Your task to perform on an android device: Go to location settings Image 0: 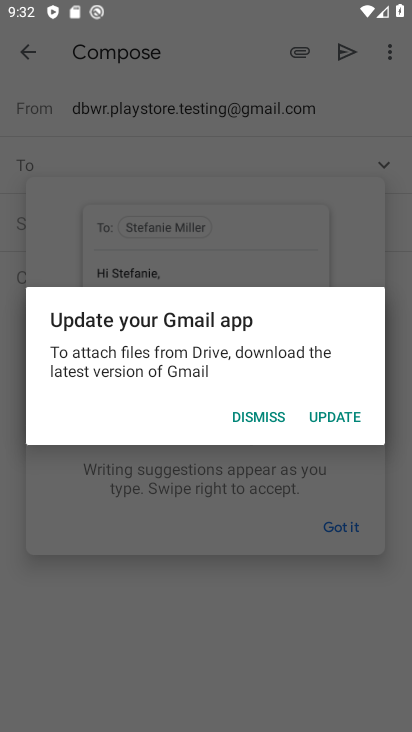
Step 0: press back button
Your task to perform on an android device: Go to location settings Image 1: 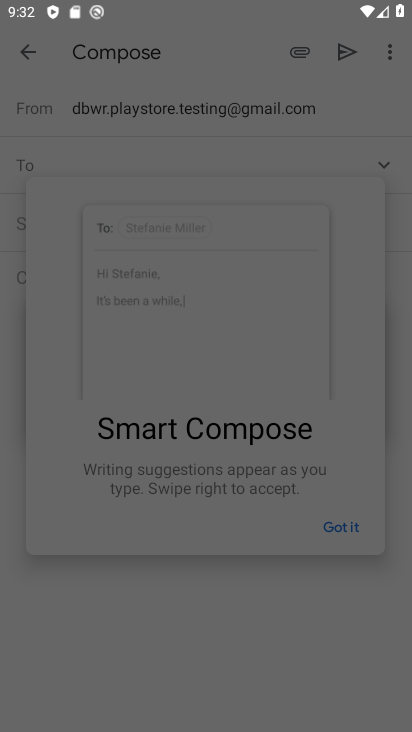
Step 1: click (329, 531)
Your task to perform on an android device: Go to location settings Image 2: 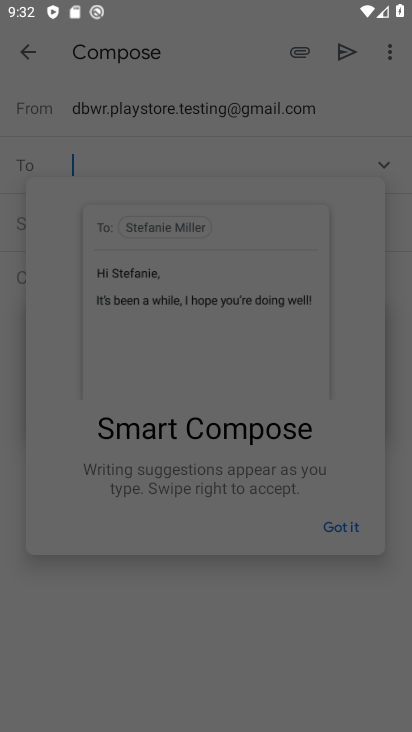
Step 2: press back button
Your task to perform on an android device: Go to location settings Image 3: 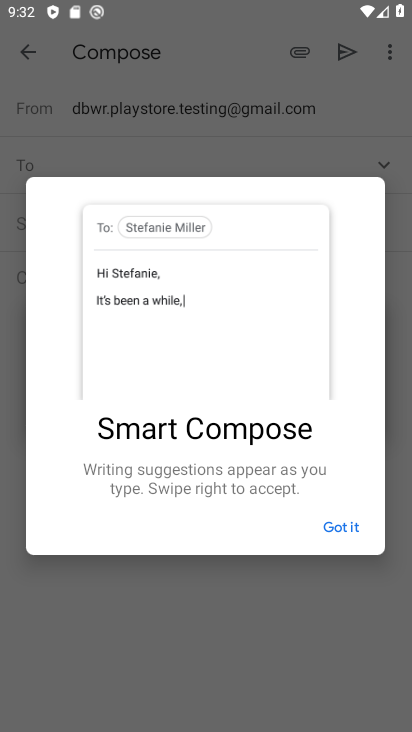
Step 3: press home button
Your task to perform on an android device: Go to location settings Image 4: 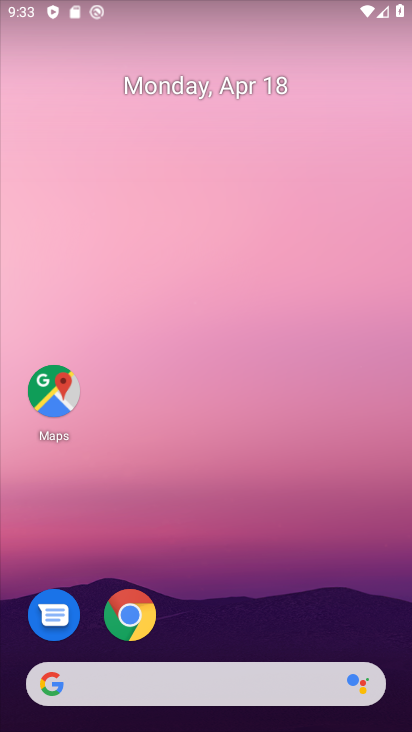
Step 4: drag from (295, 314) to (340, 149)
Your task to perform on an android device: Go to location settings Image 5: 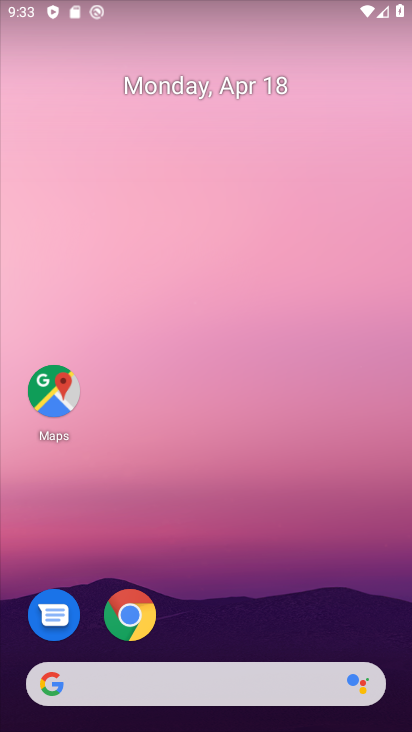
Step 5: drag from (173, 658) to (186, 169)
Your task to perform on an android device: Go to location settings Image 6: 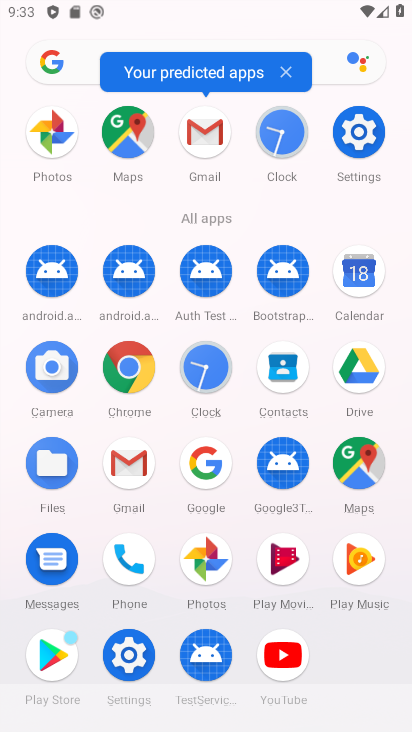
Step 6: click (351, 128)
Your task to perform on an android device: Go to location settings Image 7: 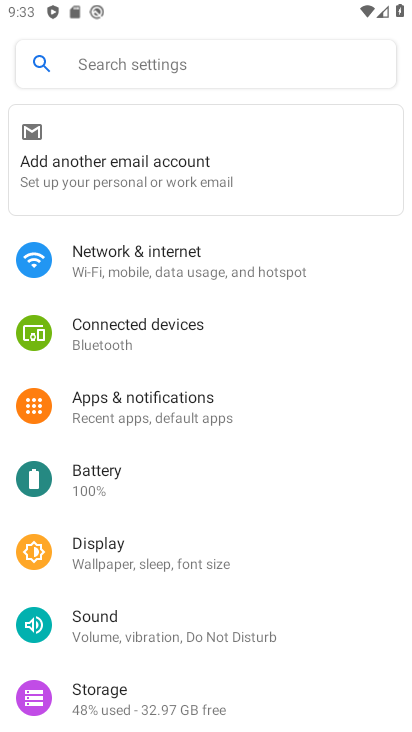
Step 7: drag from (130, 684) to (158, 331)
Your task to perform on an android device: Go to location settings Image 8: 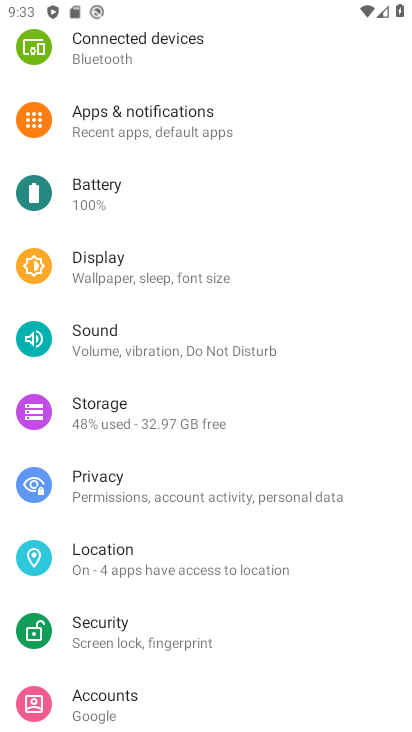
Step 8: click (111, 564)
Your task to perform on an android device: Go to location settings Image 9: 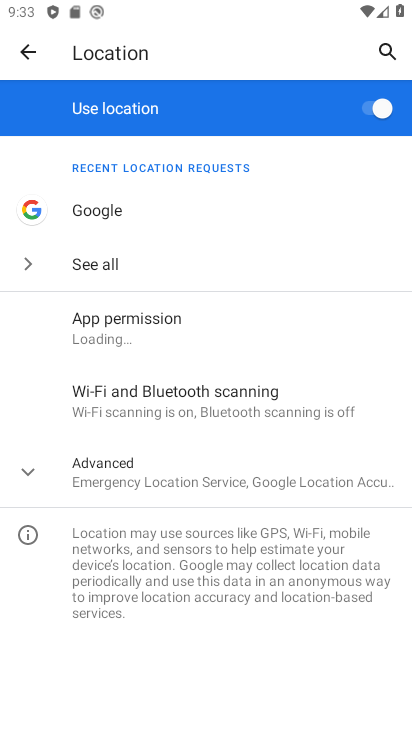
Step 9: click (129, 468)
Your task to perform on an android device: Go to location settings Image 10: 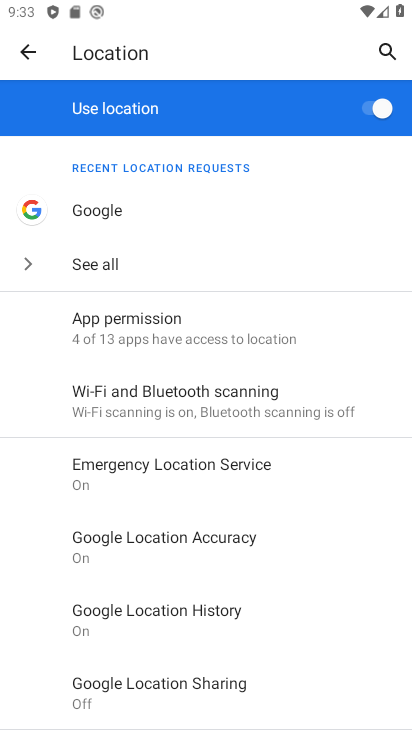
Step 10: task complete